Your task to perform on an android device: Turn on the flashlight Image 0: 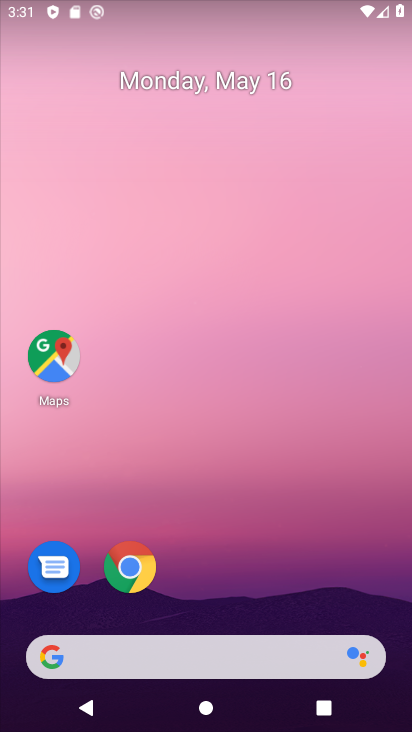
Step 0: drag from (181, 555) to (247, 58)
Your task to perform on an android device: Turn on the flashlight Image 1: 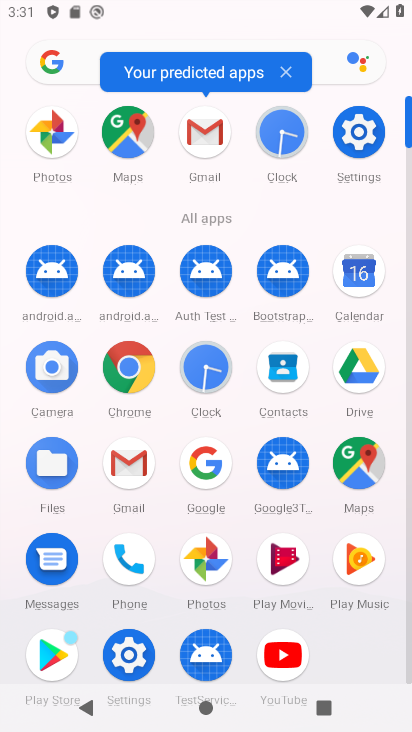
Step 1: task complete